Your task to perform on an android device: Open settings Image 0: 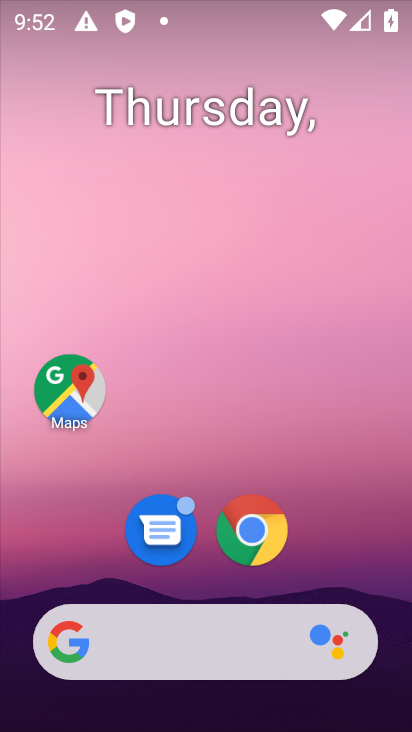
Step 0: press home button
Your task to perform on an android device: Open settings Image 1: 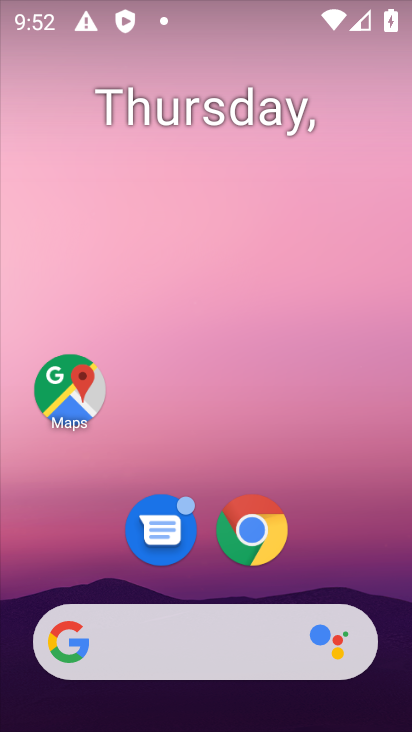
Step 1: press home button
Your task to perform on an android device: Open settings Image 2: 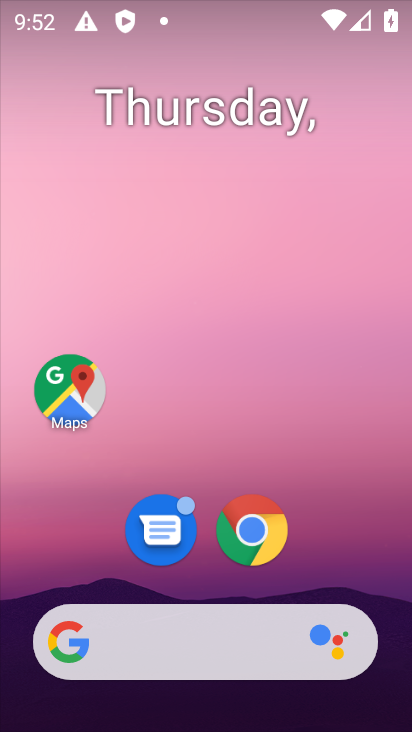
Step 2: drag from (351, 569) to (329, 0)
Your task to perform on an android device: Open settings Image 3: 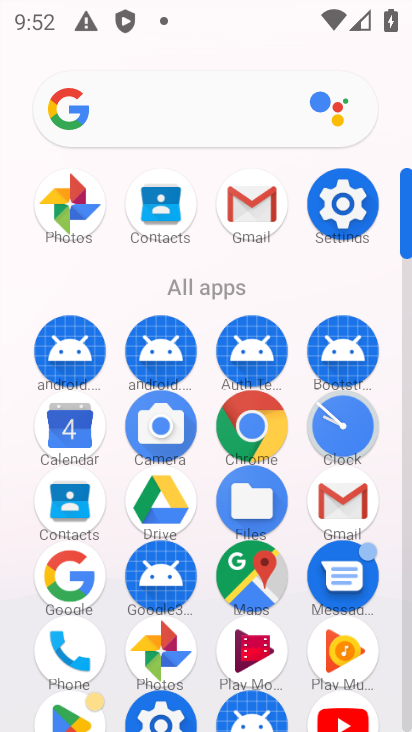
Step 3: click (354, 200)
Your task to perform on an android device: Open settings Image 4: 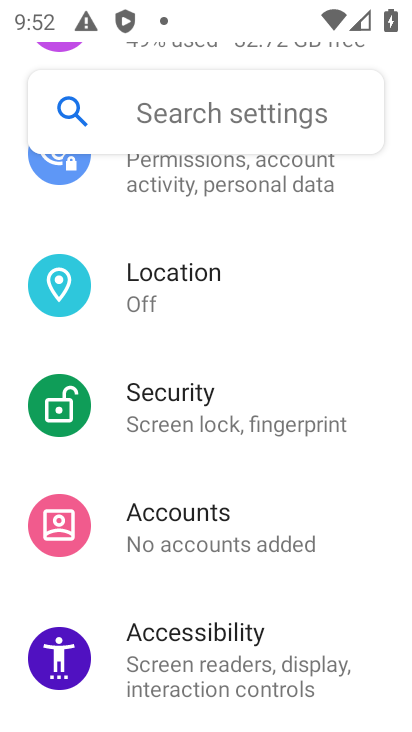
Step 4: task complete